Your task to perform on an android device: open app "eBay: The shopping marketplace" (install if not already installed), go to login, and select forgot password Image 0: 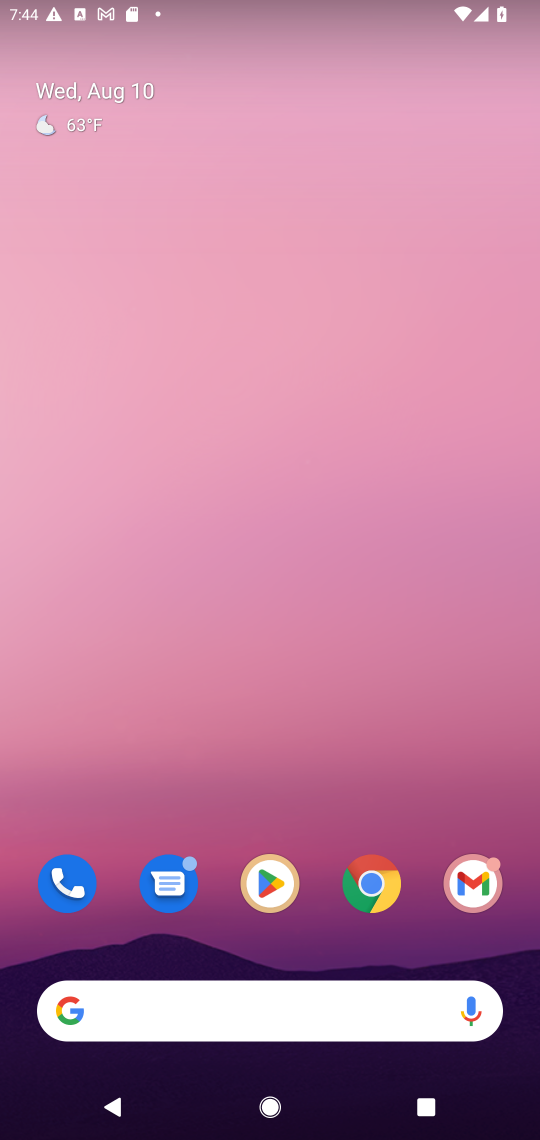
Step 0: click (260, 884)
Your task to perform on an android device: open app "eBay: The shopping marketplace" (install if not already installed), go to login, and select forgot password Image 1: 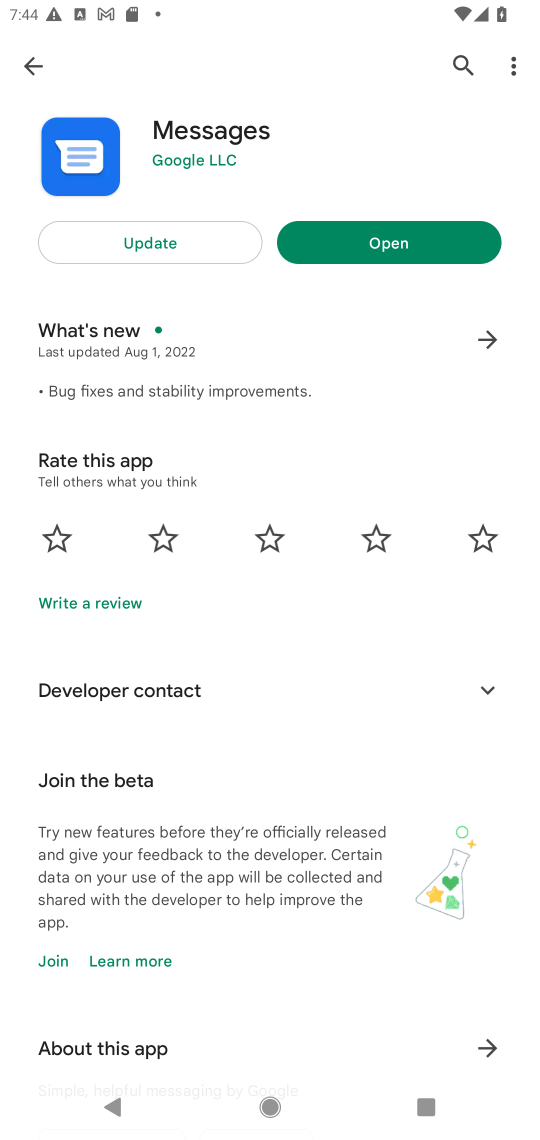
Step 1: click (461, 57)
Your task to perform on an android device: open app "eBay: The shopping marketplace" (install if not already installed), go to login, and select forgot password Image 2: 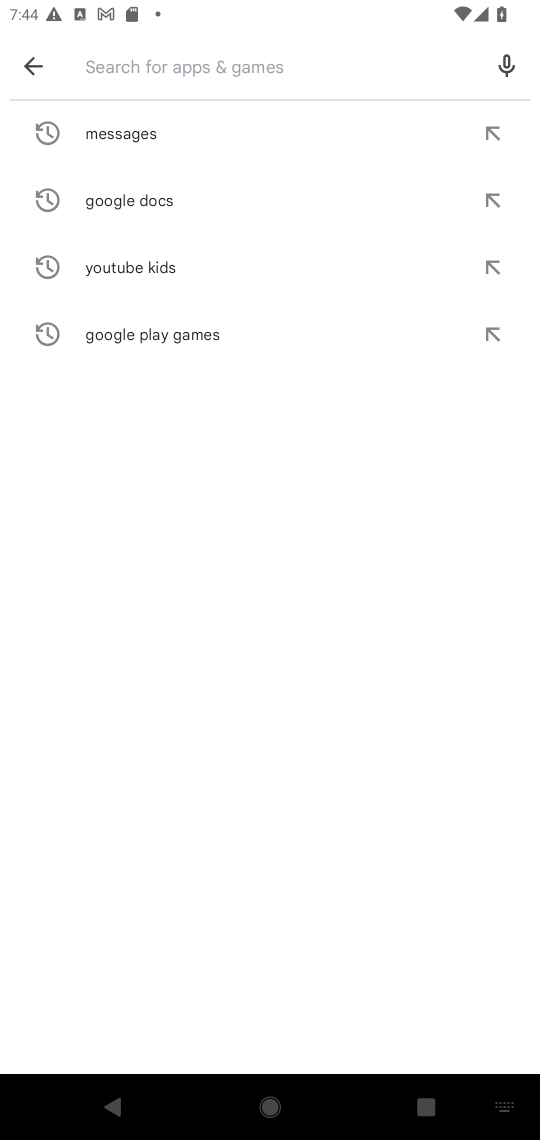
Step 2: type "eBay: The shopping marketplace"
Your task to perform on an android device: open app "eBay: The shopping marketplace" (install if not already installed), go to login, and select forgot password Image 3: 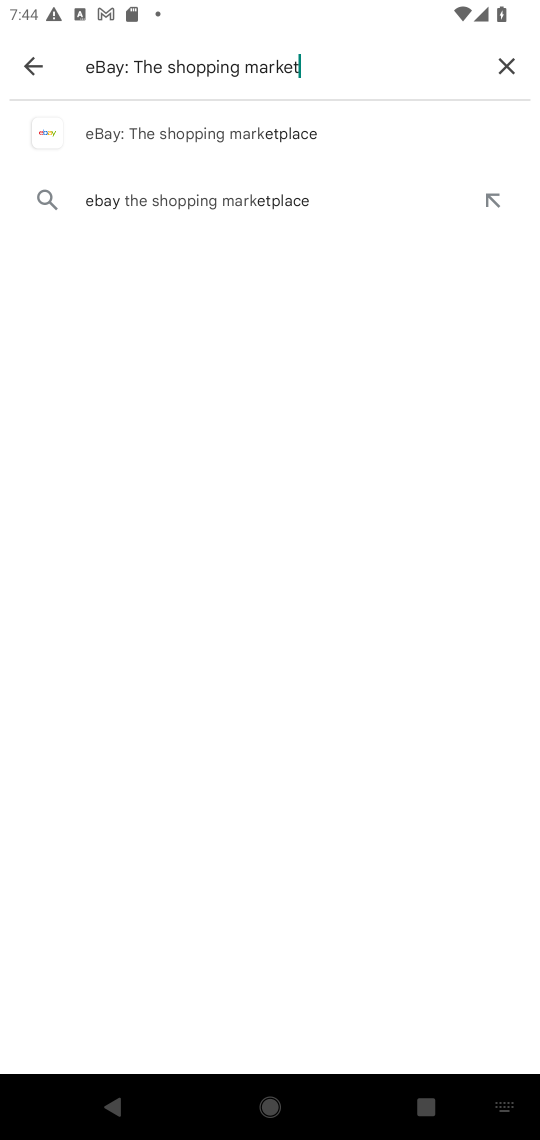
Step 3: type ""
Your task to perform on an android device: open app "eBay: The shopping marketplace" (install if not already installed), go to login, and select forgot password Image 4: 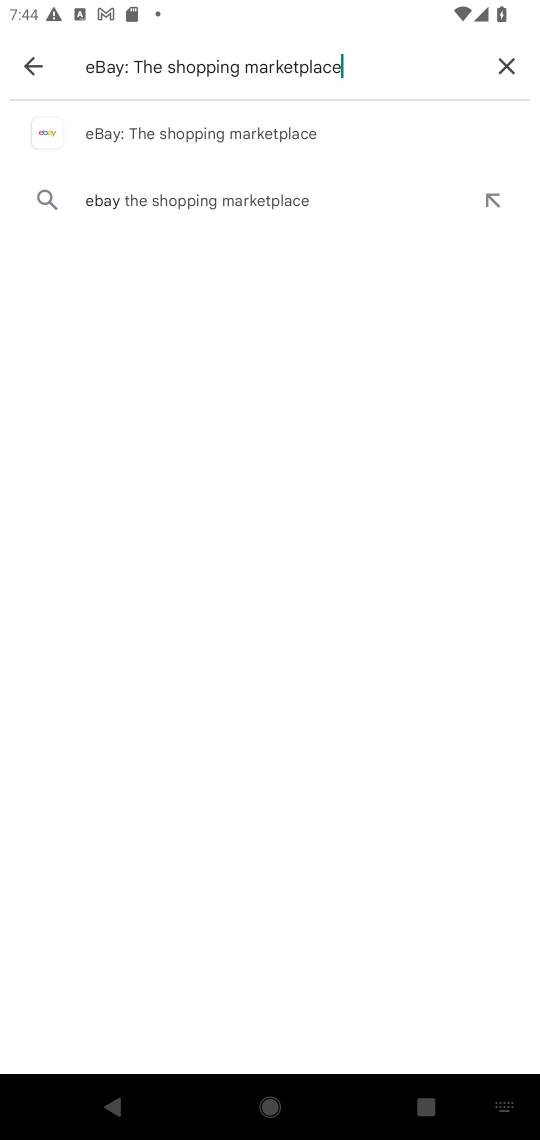
Step 4: click (257, 132)
Your task to perform on an android device: open app "eBay: The shopping marketplace" (install if not already installed), go to login, and select forgot password Image 5: 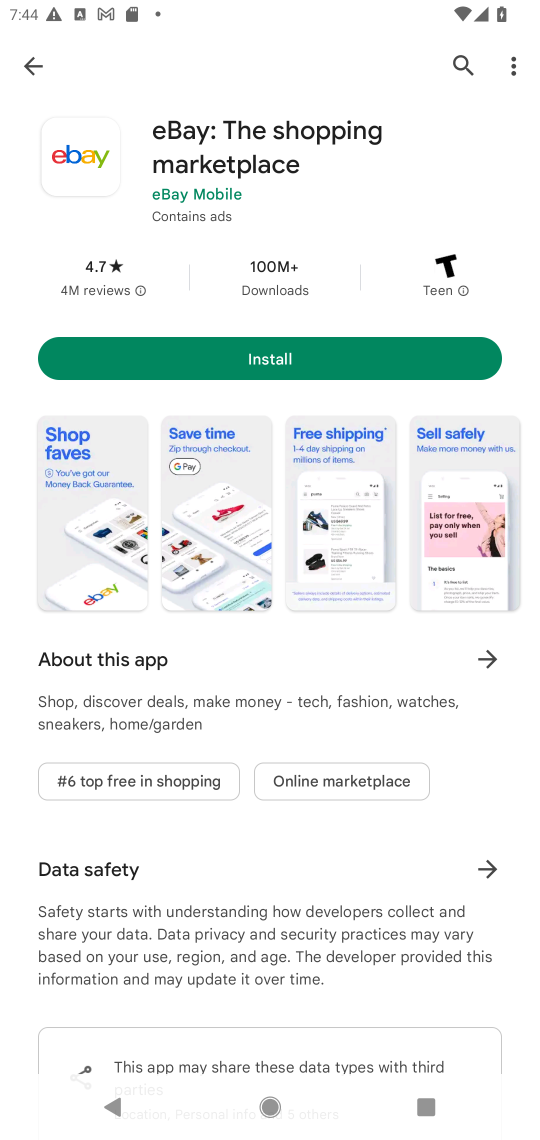
Step 5: click (296, 359)
Your task to perform on an android device: open app "eBay: The shopping marketplace" (install if not already installed), go to login, and select forgot password Image 6: 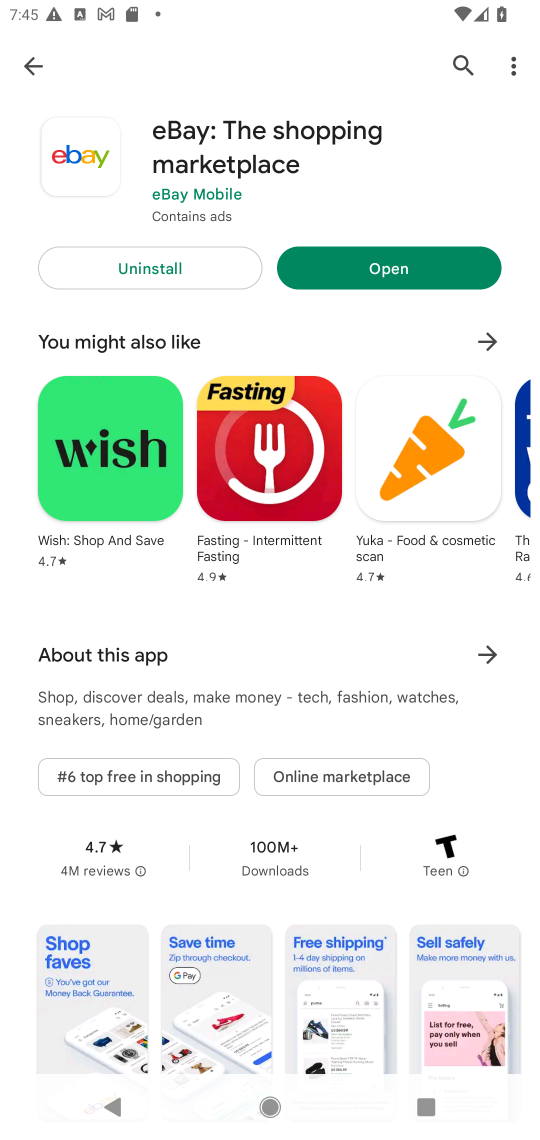
Step 6: click (356, 279)
Your task to perform on an android device: open app "eBay: The shopping marketplace" (install if not already installed), go to login, and select forgot password Image 7: 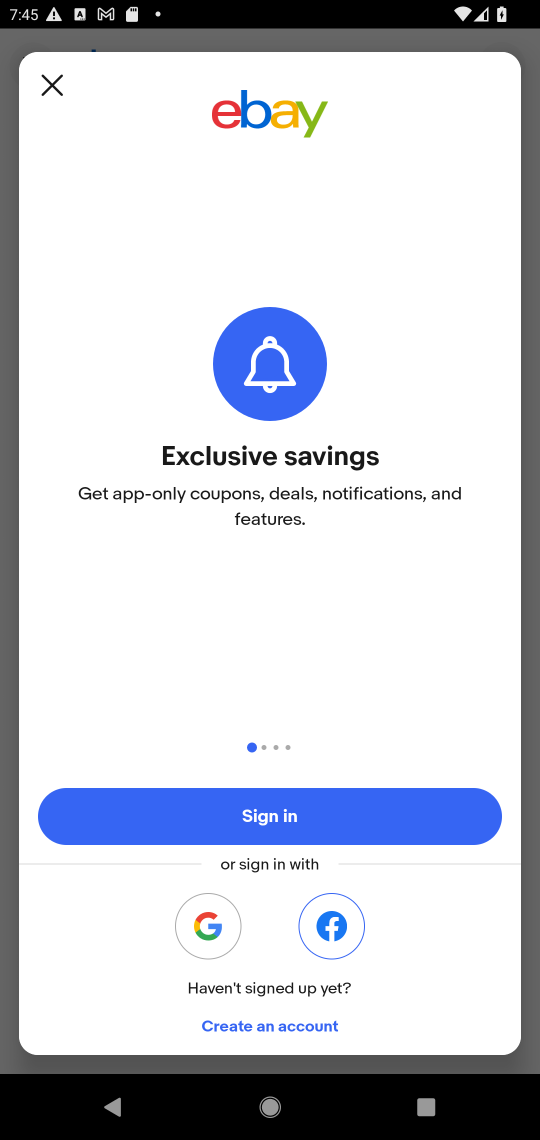
Step 7: task complete